Your task to perform on an android device: Open wifi settings Image 0: 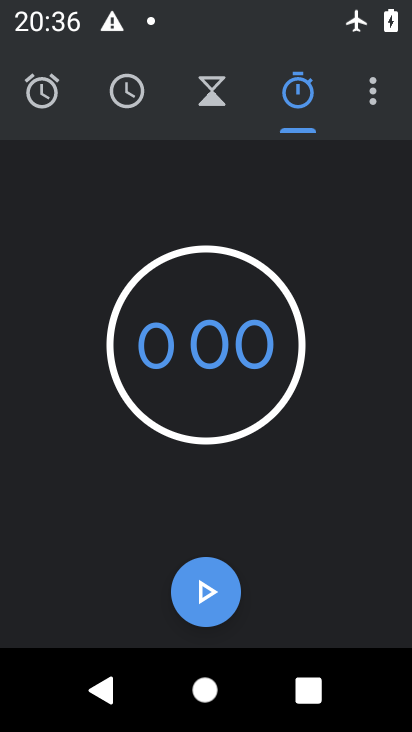
Step 0: press home button
Your task to perform on an android device: Open wifi settings Image 1: 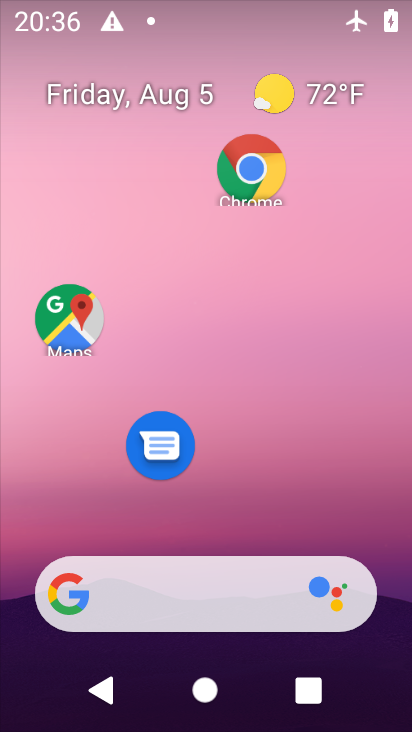
Step 1: drag from (209, 467) to (185, 157)
Your task to perform on an android device: Open wifi settings Image 2: 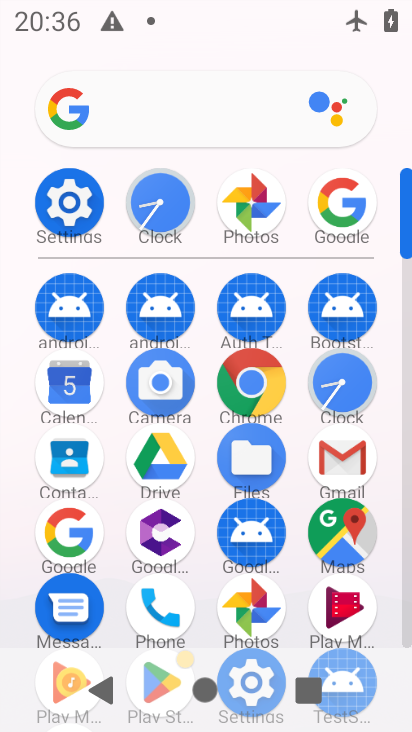
Step 2: click (74, 226)
Your task to perform on an android device: Open wifi settings Image 3: 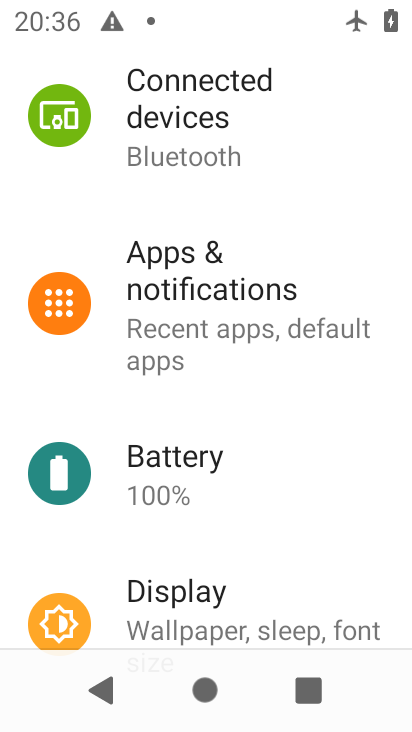
Step 3: drag from (214, 152) to (239, 466)
Your task to perform on an android device: Open wifi settings Image 4: 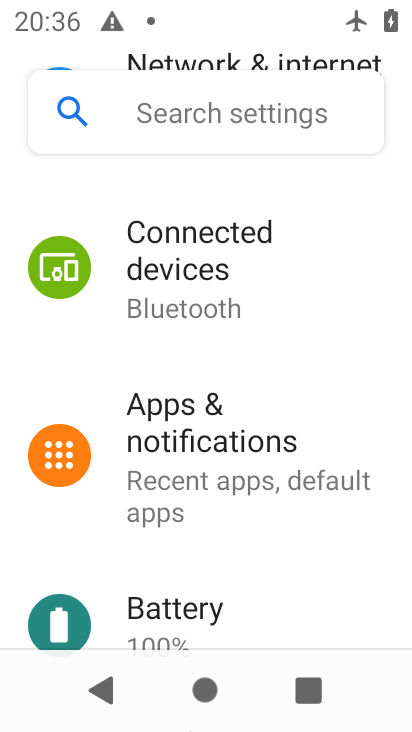
Step 4: drag from (219, 200) to (221, 517)
Your task to perform on an android device: Open wifi settings Image 5: 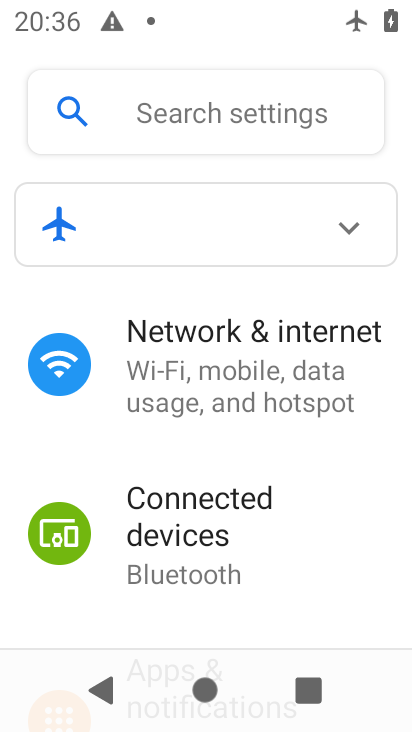
Step 5: click (183, 341)
Your task to perform on an android device: Open wifi settings Image 6: 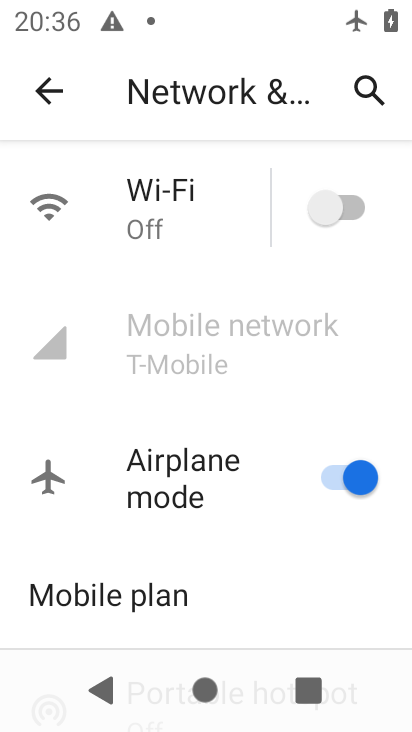
Step 6: click (156, 215)
Your task to perform on an android device: Open wifi settings Image 7: 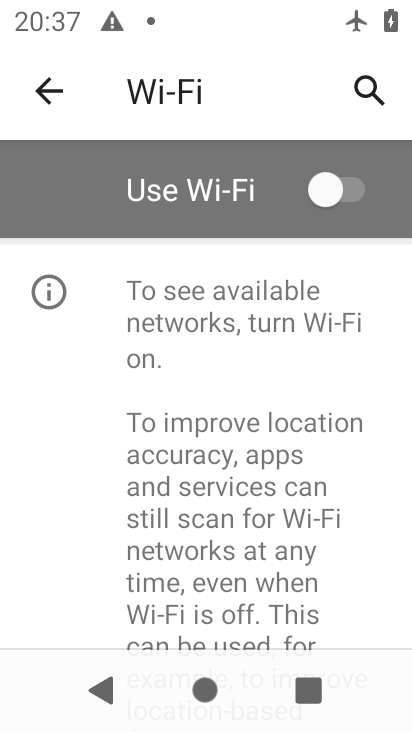
Step 7: task complete